Your task to perform on an android device: check storage Image 0: 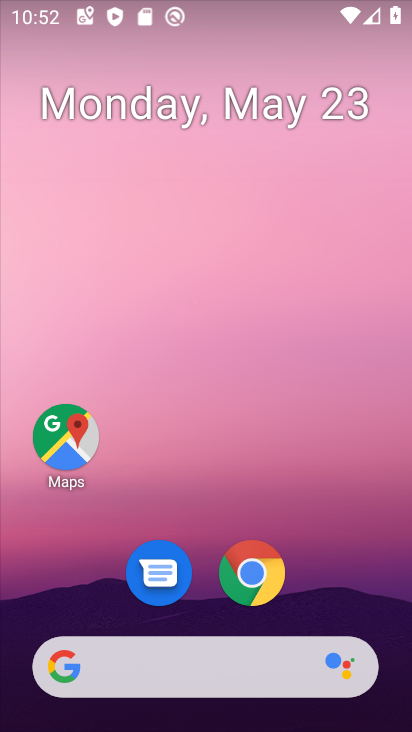
Step 0: drag from (313, 633) to (333, 242)
Your task to perform on an android device: check storage Image 1: 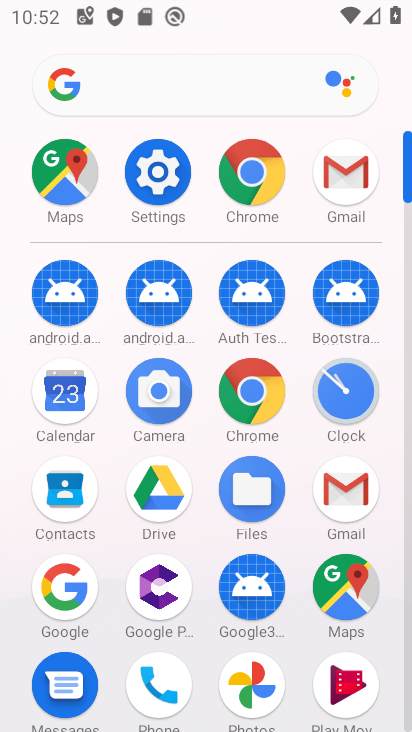
Step 1: click (167, 178)
Your task to perform on an android device: check storage Image 2: 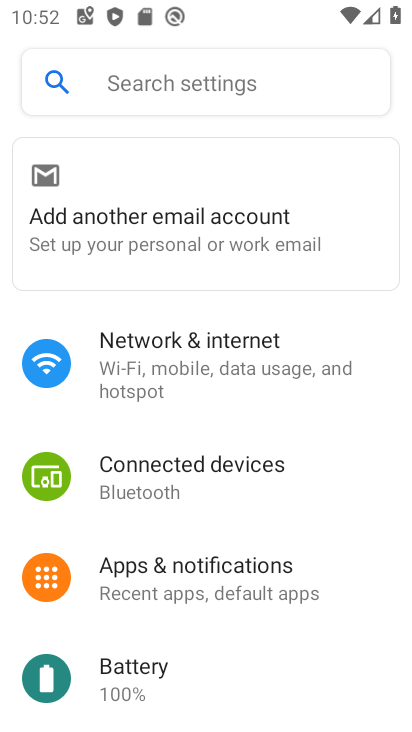
Step 2: drag from (201, 506) to (258, 207)
Your task to perform on an android device: check storage Image 3: 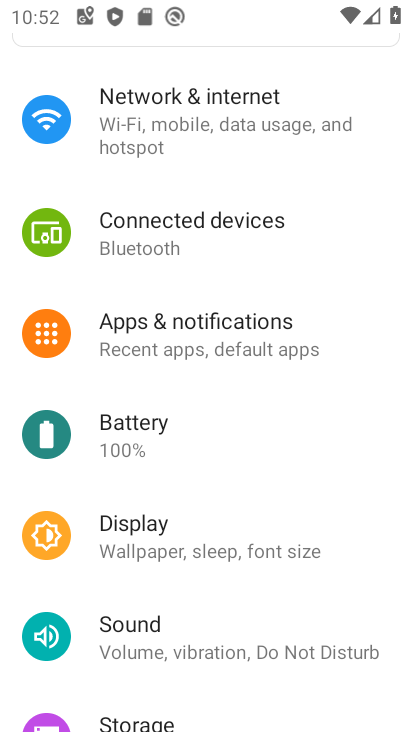
Step 3: drag from (218, 476) to (230, 402)
Your task to perform on an android device: check storage Image 4: 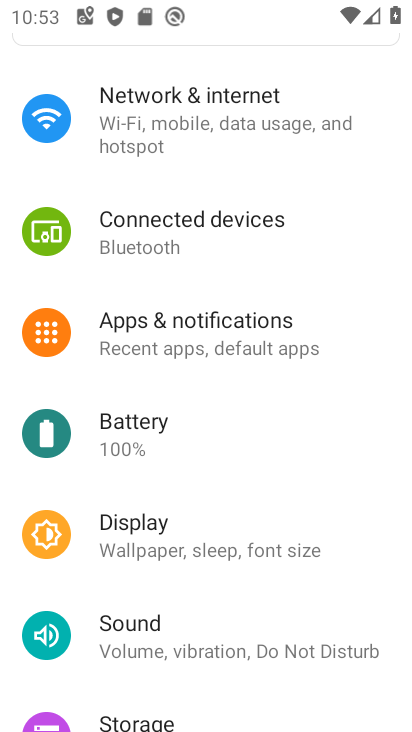
Step 4: drag from (217, 657) to (261, 351)
Your task to perform on an android device: check storage Image 5: 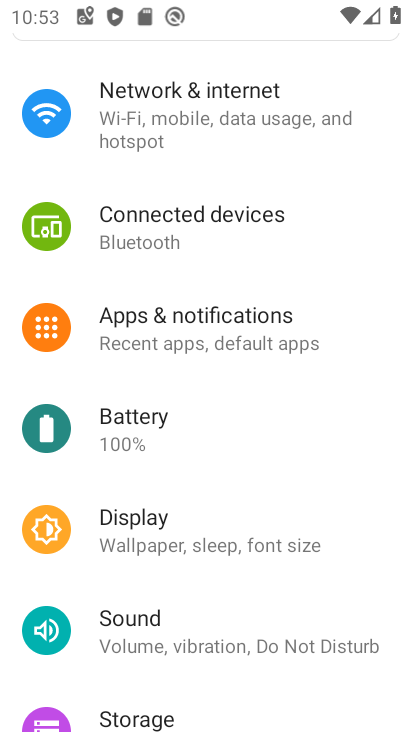
Step 5: drag from (243, 570) to (261, 365)
Your task to perform on an android device: check storage Image 6: 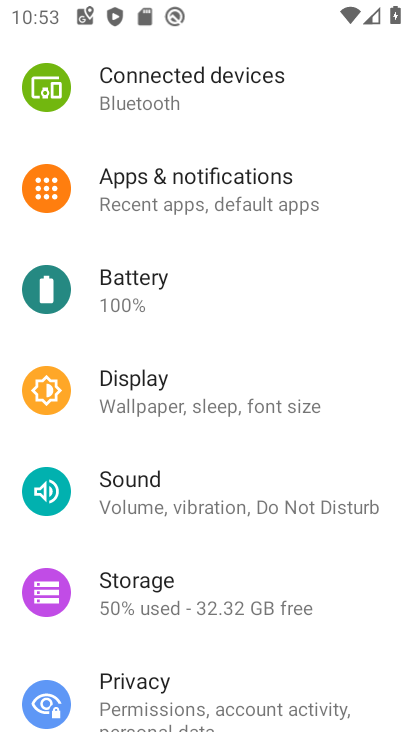
Step 6: click (174, 600)
Your task to perform on an android device: check storage Image 7: 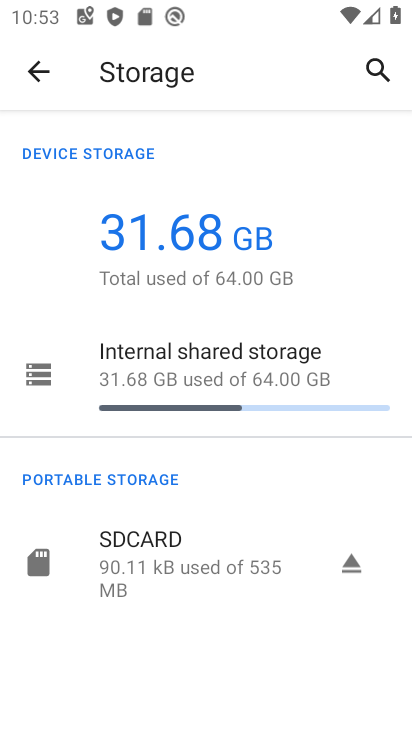
Step 7: click (207, 367)
Your task to perform on an android device: check storage Image 8: 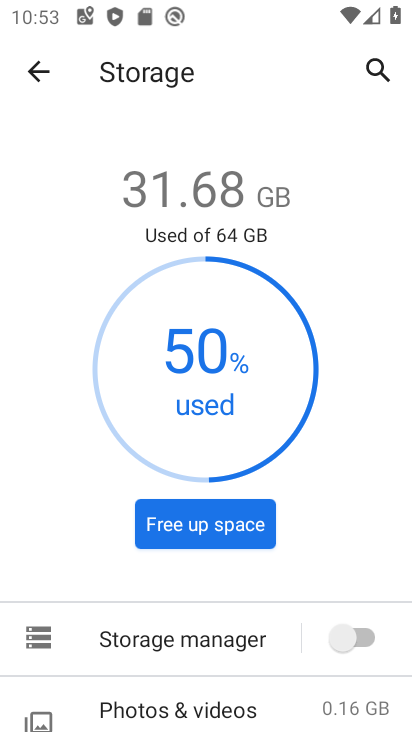
Step 8: task complete